Your task to perform on an android device: turn off data saver in the chrome app Image 0: 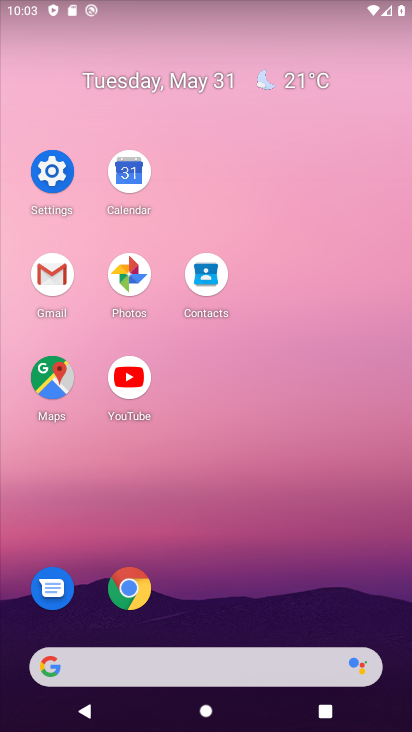
Step 0: click (125, 590)
Your task to perform on an android device: turn off data saver in the chrome app Image 1: 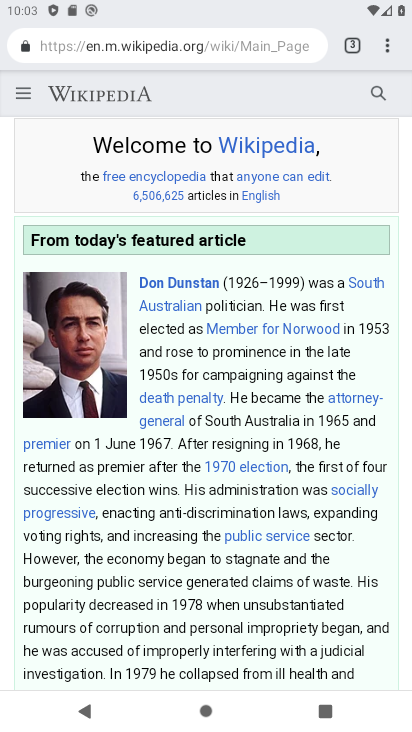
Step 1: click (388, 47)
Your task to perform on an android device: turn off data saver in the chrome app Image 2: 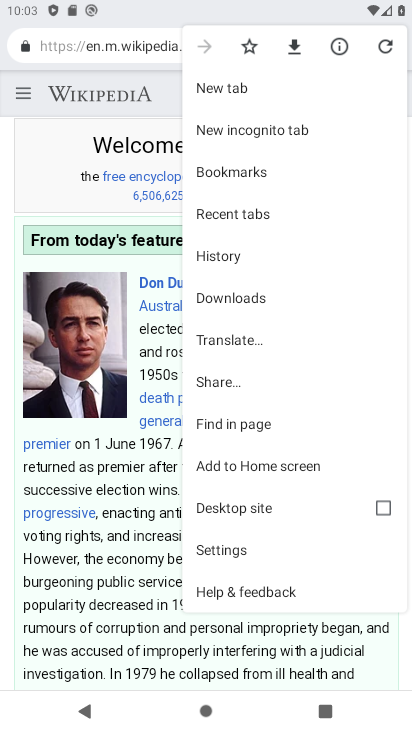
Step 2: click (217, 548)
Your task to perform on an android device: turn off data saver in the chrome app Image 3: 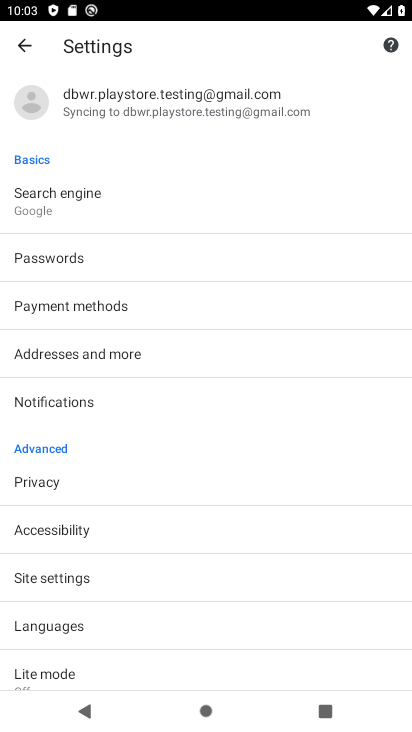
Step 3: drag from (139, 641) to (199, 301)
Your task to perform on an android device: turn off data saver in the chrome app Image 4: 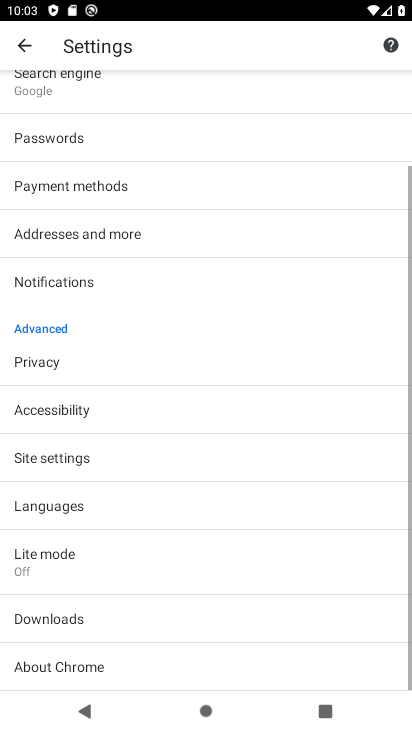
Step 4: drag from (128, 600) to (168, 184)
Your task to perform on an android device: turn off data saver in the chrome app Image 5: 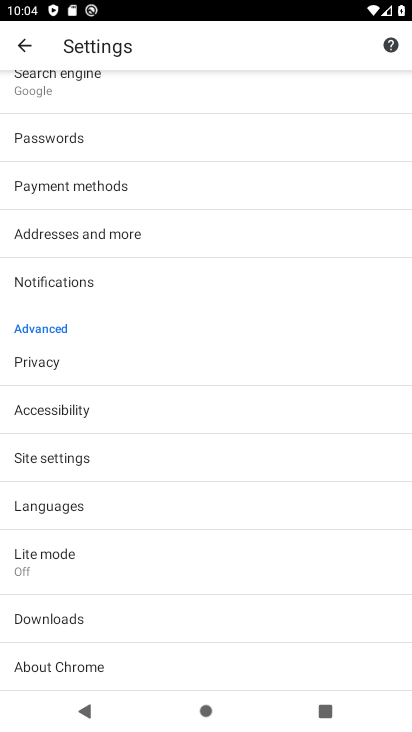
Step 5: drag from (188, 584) to (240, 220)
Your task to perform on an android device: turn off data saver in the chrome app Image 6: 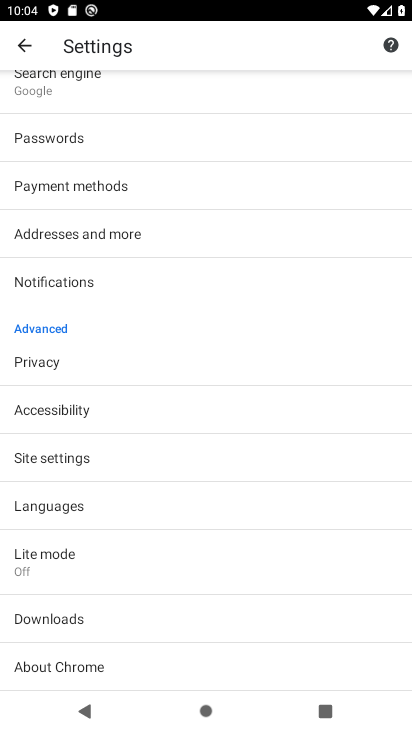
Step 6: click (195, 553)
Your task to perform on an android device: turn off data saver in the chrome app Image 7: 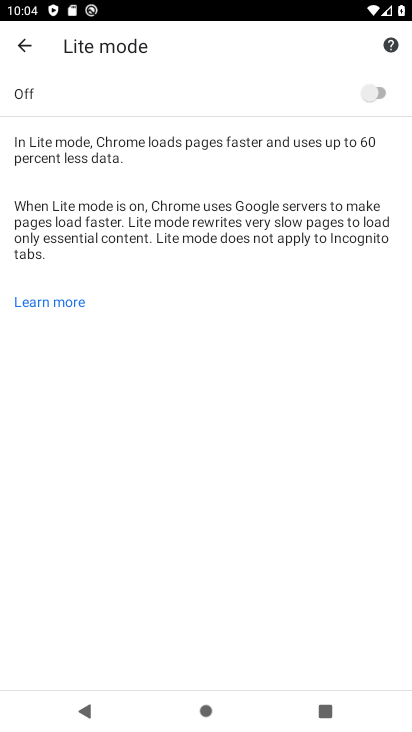
Step 7: task complete